Your task to perform on an android device: Empty the shopping cart on newegg. Image 0: 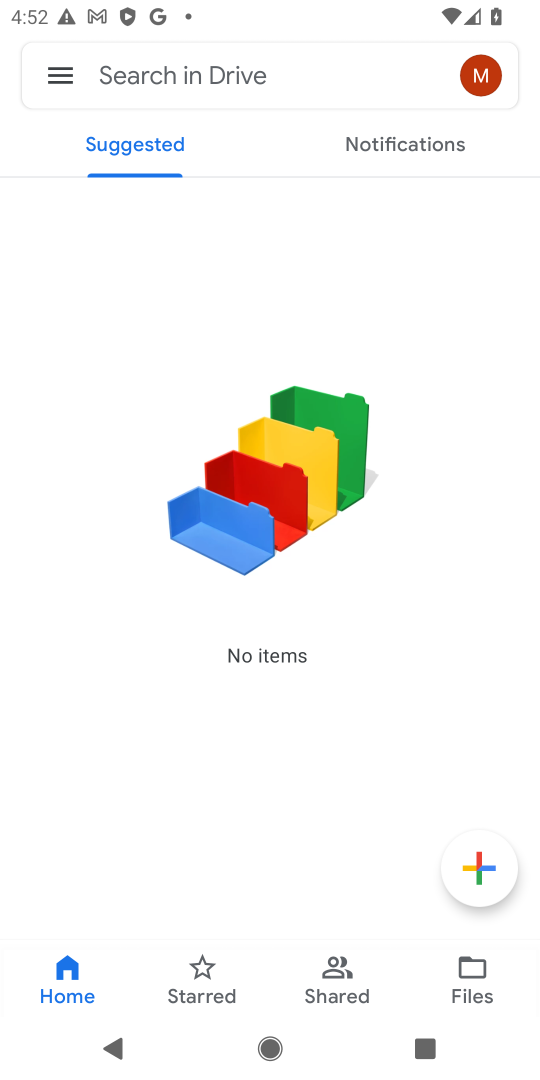
Step 0: press home button
Your task to perform on an android device: Empty the shopping cart on newegg. Image 1: 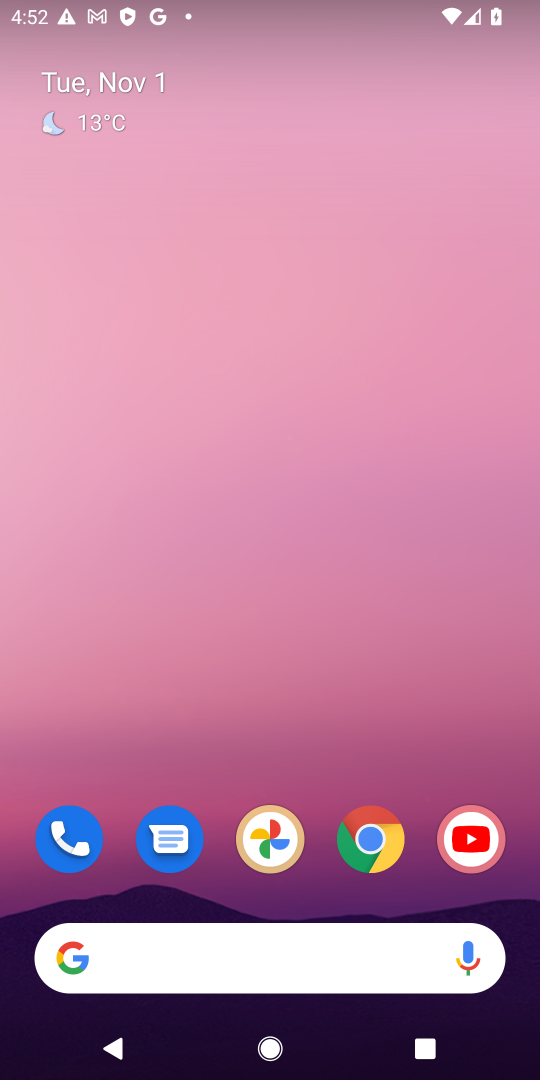
Step 1: drag from (324, 896) to (375, 117)
Your task to perform on an android device: Empty the shopping cart on newegg. Image 2: 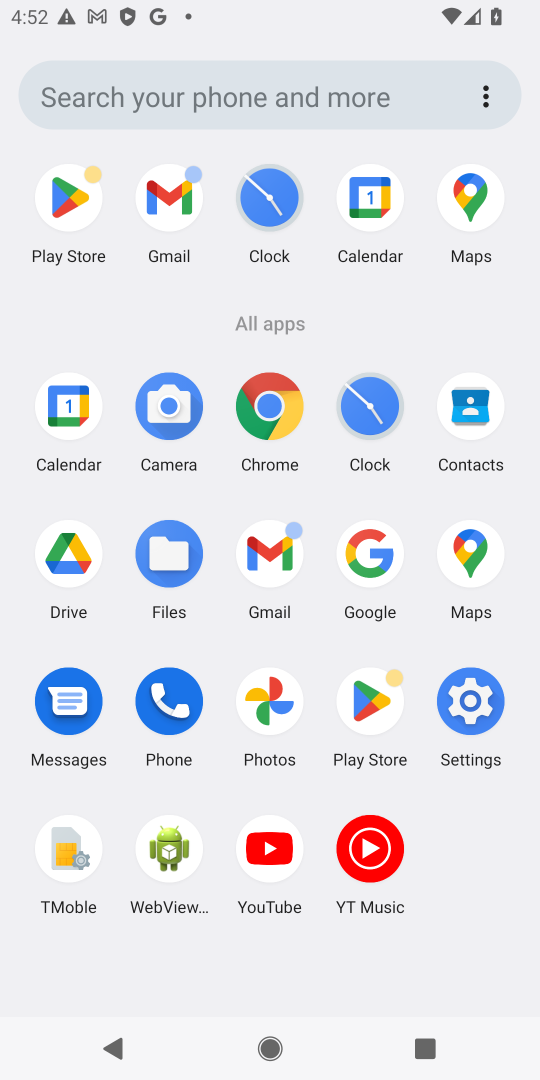
Step 2: click (259, 409)
Your task to perform on an android device: Empty the shopping cart on newegg. Image 3: 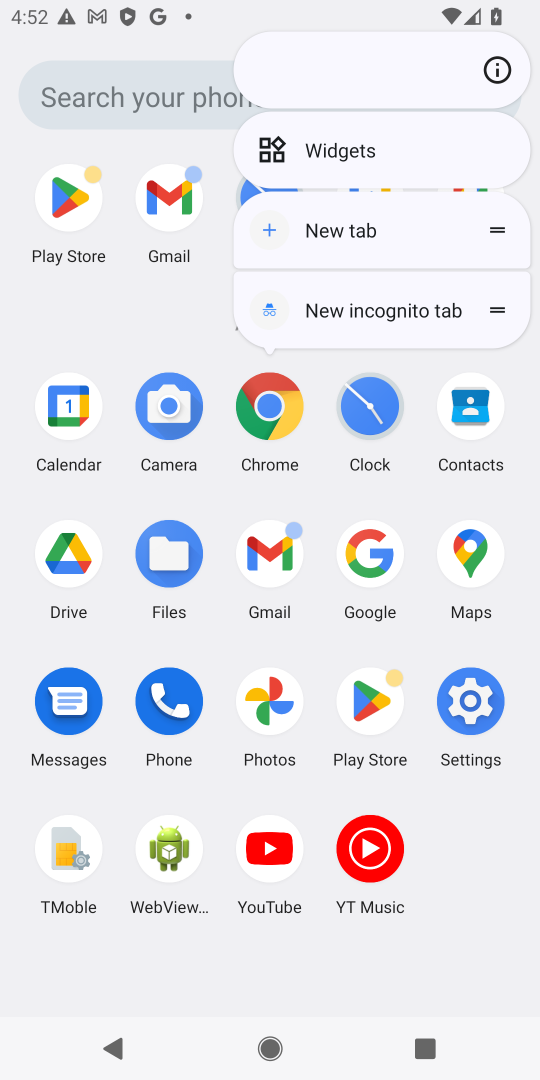
Step 3: click (273, 412)
Your task to perform on an android device: Empty the shopping cart on newegg. Image 4: 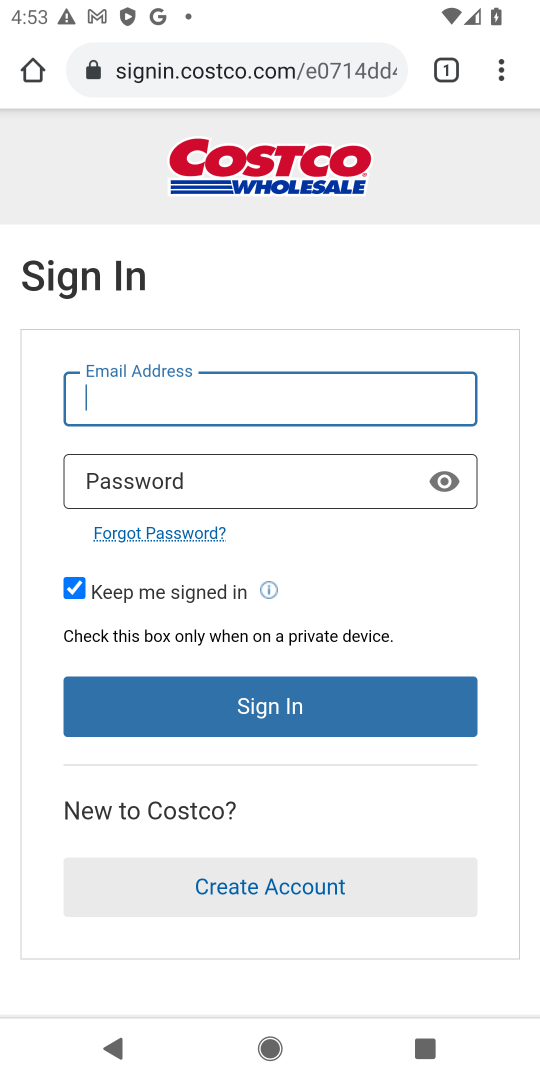
Step 4: click (346, 75)
Your task to perform on an android device: Empty the shopping cart on newegg. Image 5: 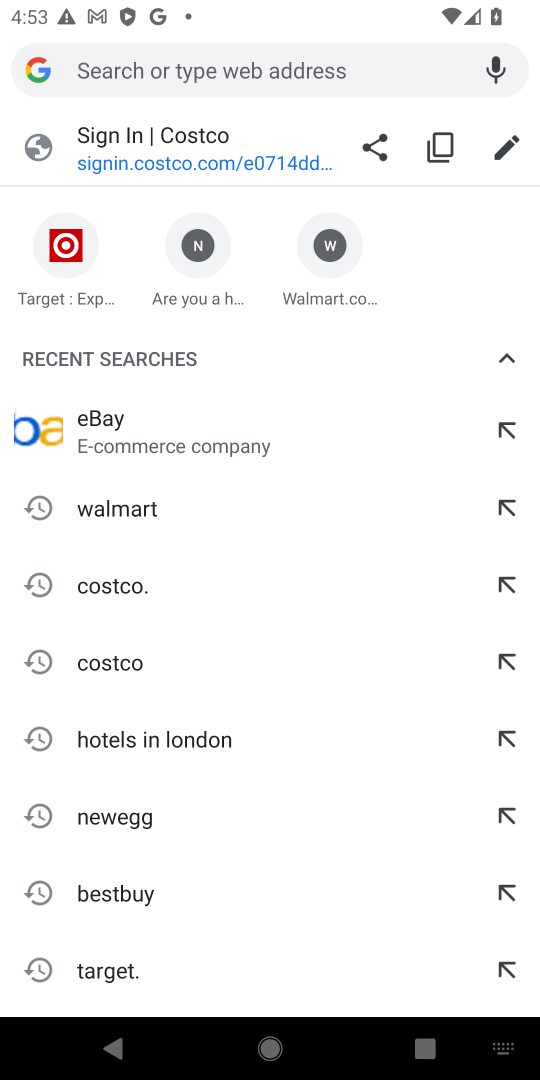
Step 5: type "newegg.com"
Your task to perform on an android device: Empty the shopping cart on newegg. Image 6: 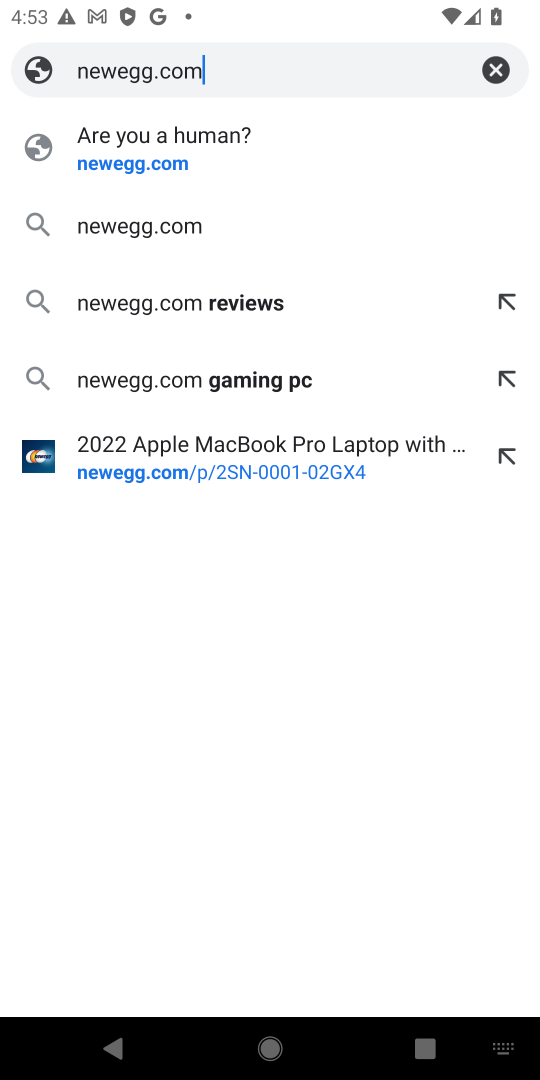
Step 6: press enter
Your task to perform on an android device: Empty the shopping cart on newegg. Image 7: 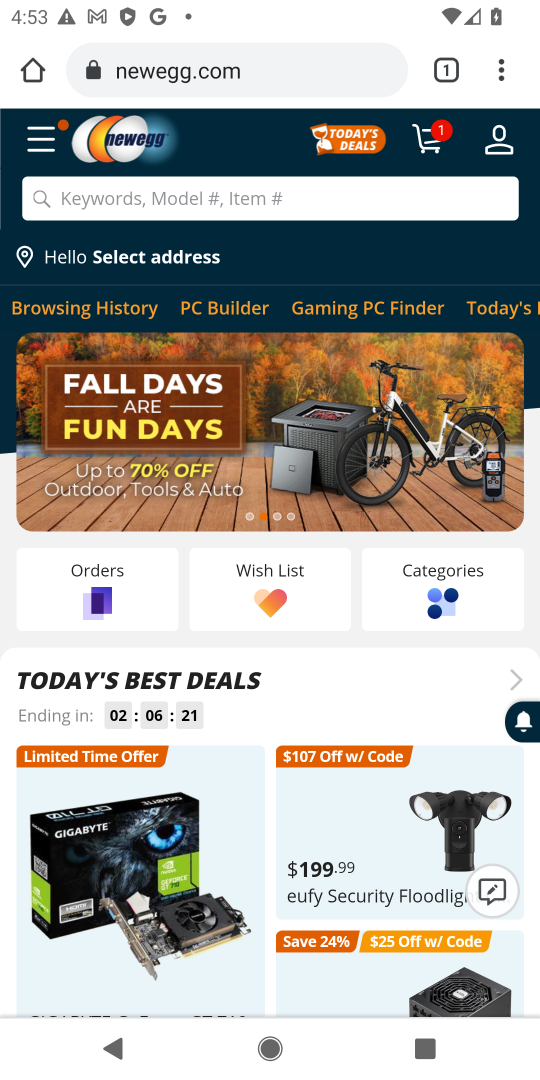
Step 7: click (443, 135)
Your task to perform on an android device: Empty the shopping cart on newegg. Image 8: 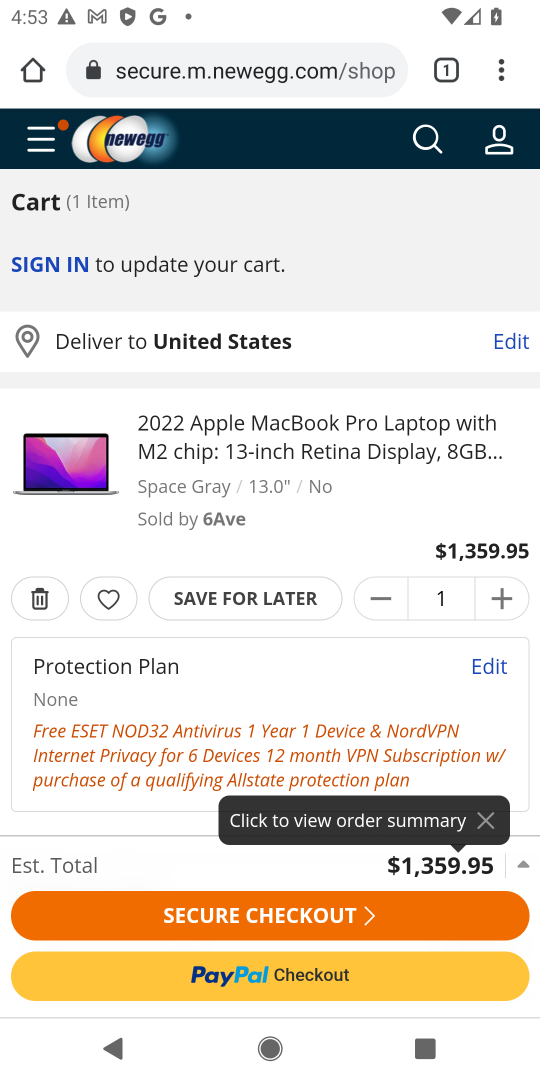
Step 8: drag from (183, 803) to (303, 283)
Your task to perform on an android device: Empty the shopping cart on newegg. Image 9: 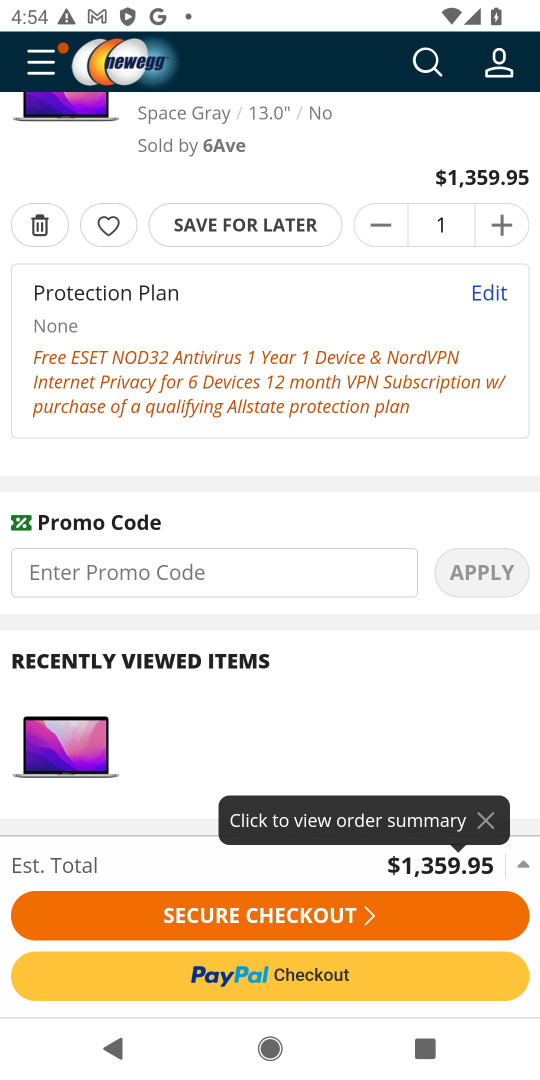
Step 9: drag from (361, 308) to (325, 785)
Your task to perform on an android device: Empty the shopping cart on newegg. Image 10: 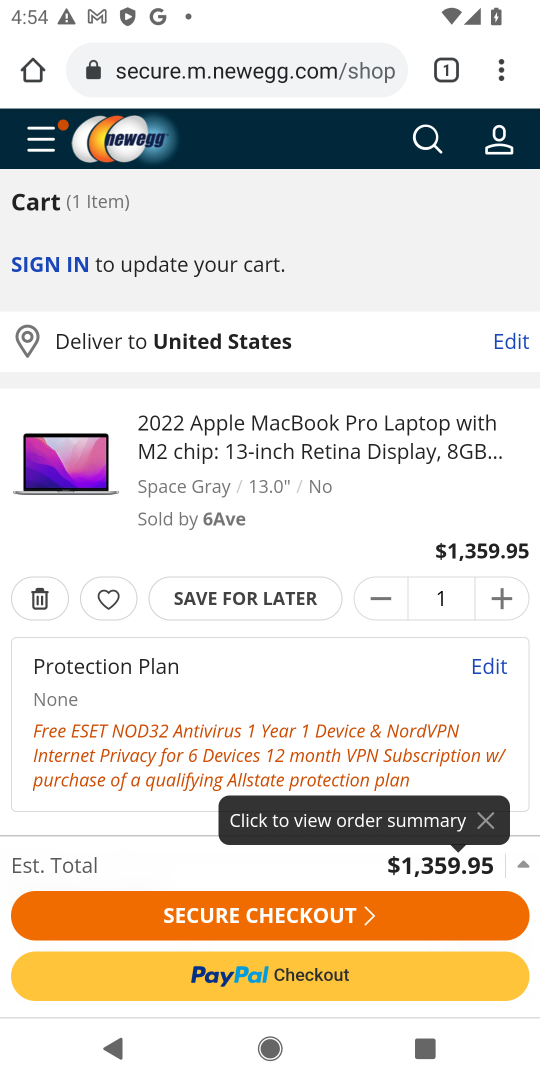
Step 10: drag from (373, 731) to (356, 671)
Your task to perform on an android device: Empty the shopping cart on newegg. Image 11: 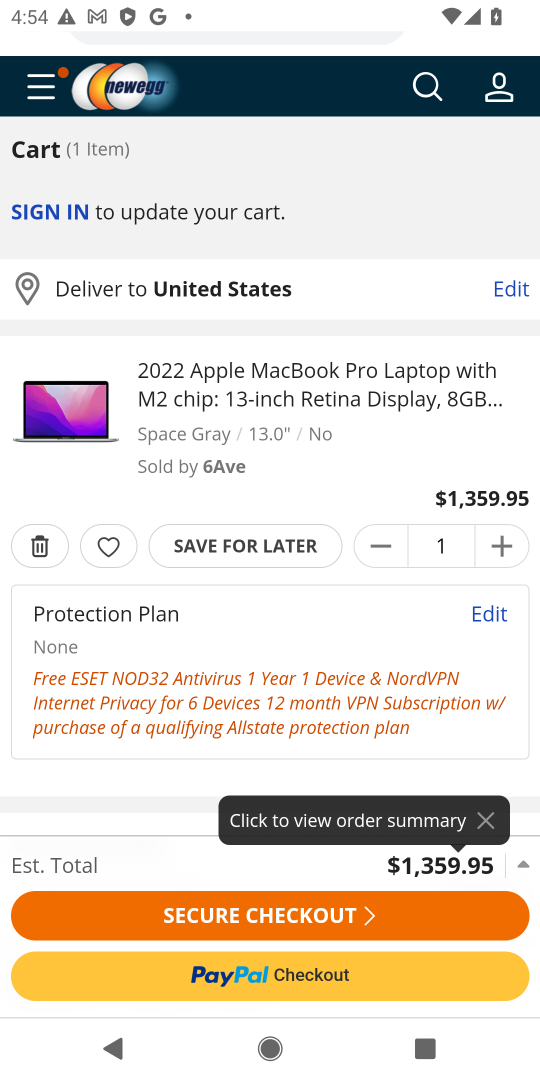
Step 11: click (39, 552)
Your task to perform on an android device: Empty the shopping cart on newegg. Image 12: 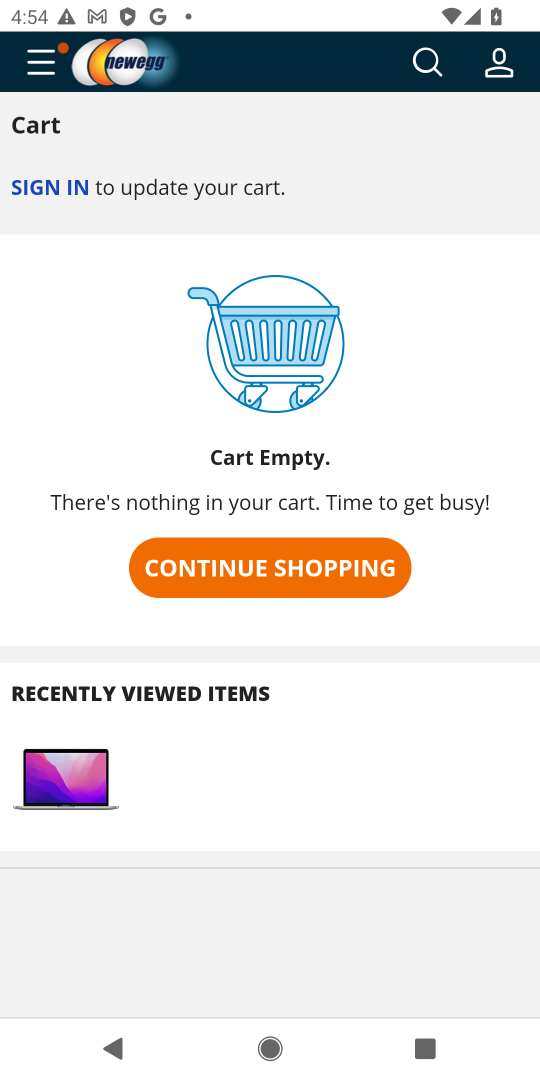
Step 12: task complete